Your task to perform on an android device: delete a single message in the gmail app Image 0: 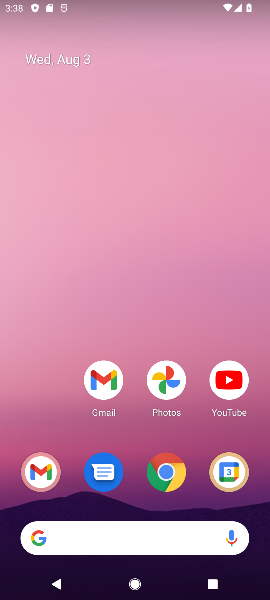
Step 0: drag from (198, 468) to (74, 40)
Your task to perform on an android device: delete a single message in the gmail app Image 1: 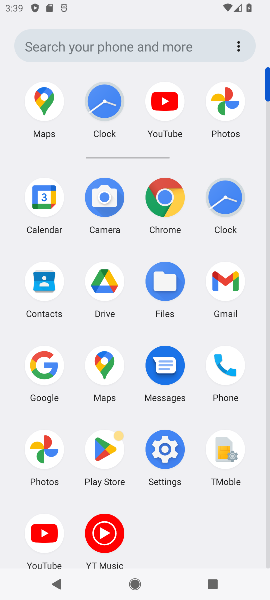
Step 1: click (219, 298)
Your task to perform on an android device: delete a single message in the gmail app Image 2: 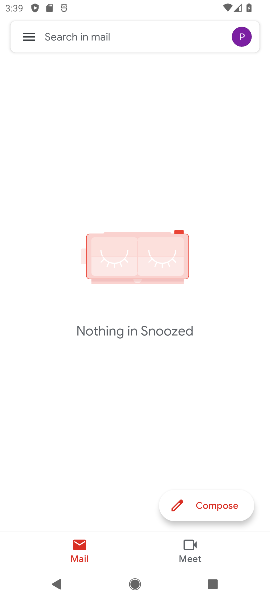
Step 2: click (31, 37)
Your task to perform on an android device: delete a single message in the gmail app Image 3: 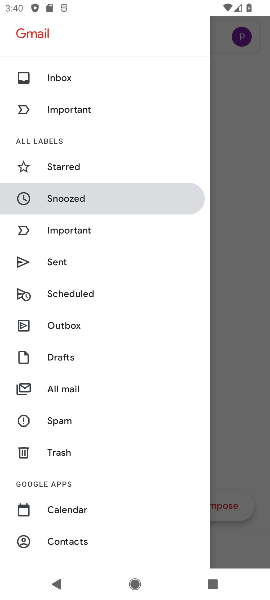
Step 3: click (61, 77)
Your task to perform on an android device: delete a single message in the gmail app Image 4: 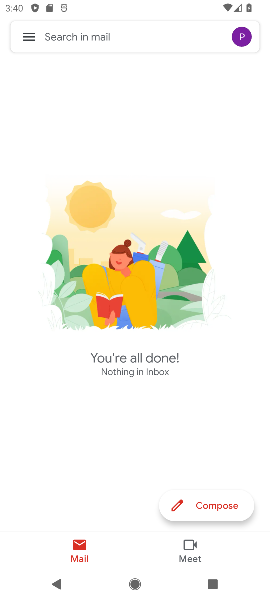
Step 4: task complete